Your task to perform on an android device: Is it going to rain today? Image 0: 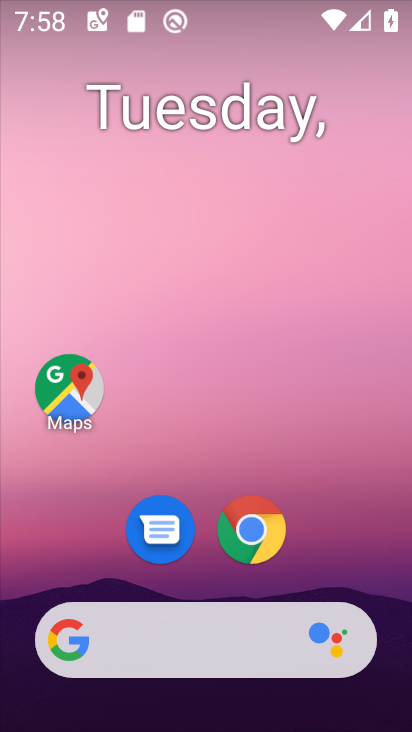
Step 0: click (187, 633)
Your task to perform on an android device: Is it going to rain today? Image 1: 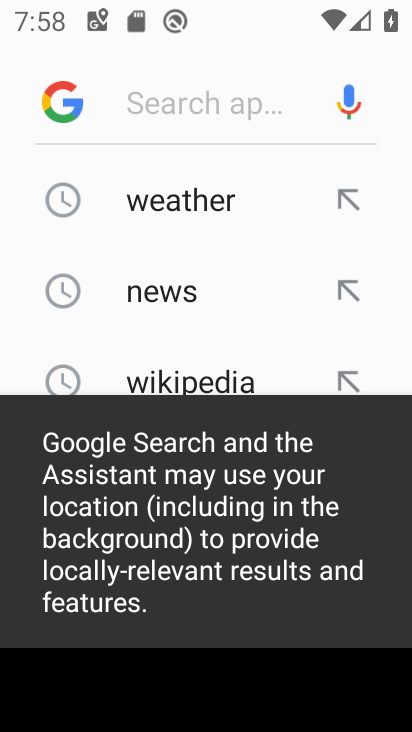
Step 1: click (183, 188)
Your task to perform on an android device: Is it going to rain today? Image 2: 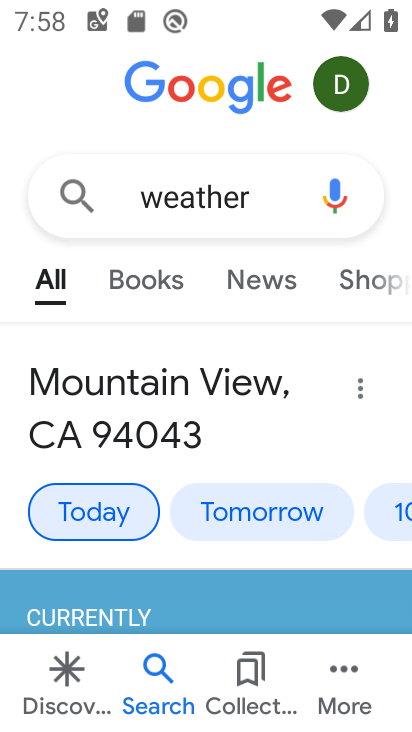
Step 2: task complete